Your task to perform on an android device: Check the weather Image 0: 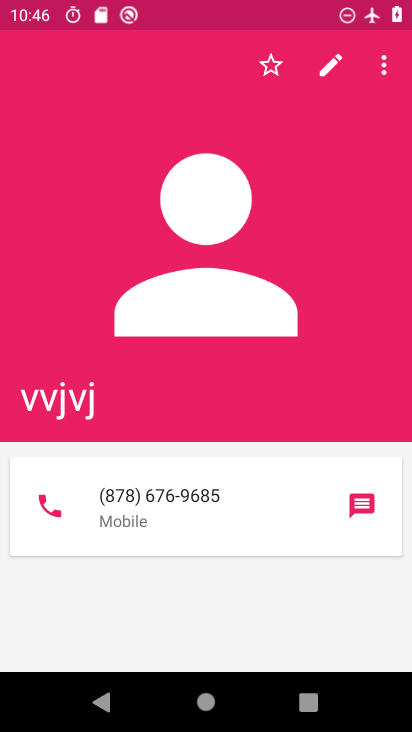
Step 0: press home button
Your task to perform on an android device: Check the weather Image 1: 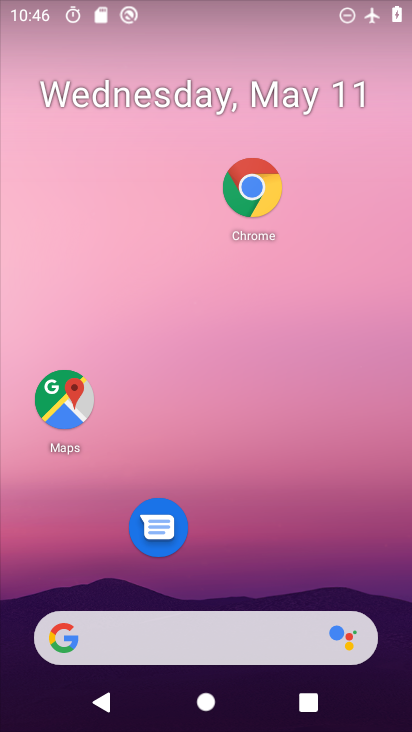
Step 1: drag from (270, 614) to (374, 182)
Your task to perform on an android device: Check the weather Image 2: 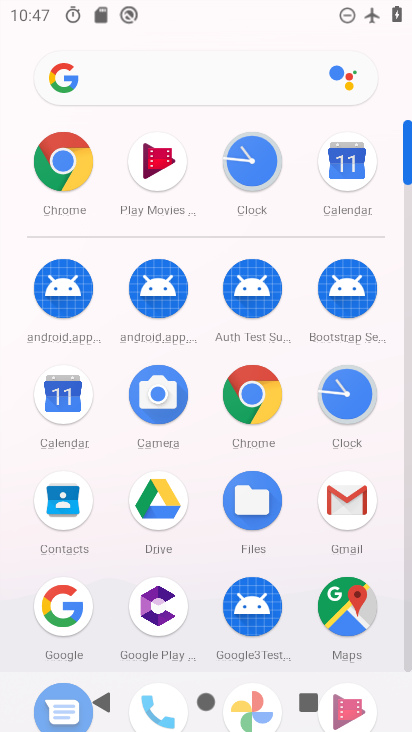
Step 2: click (64, 608)
Your task to perform on an android device: Check the weather Image 3: 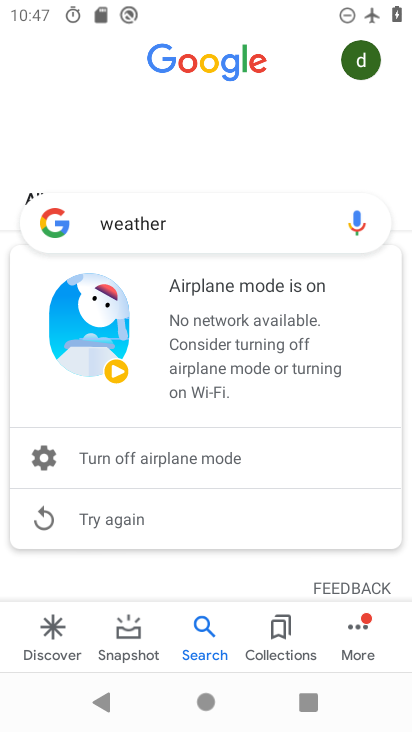
Step 3: task complete